Your task to perform on an android device: change notifications settings Image 0: 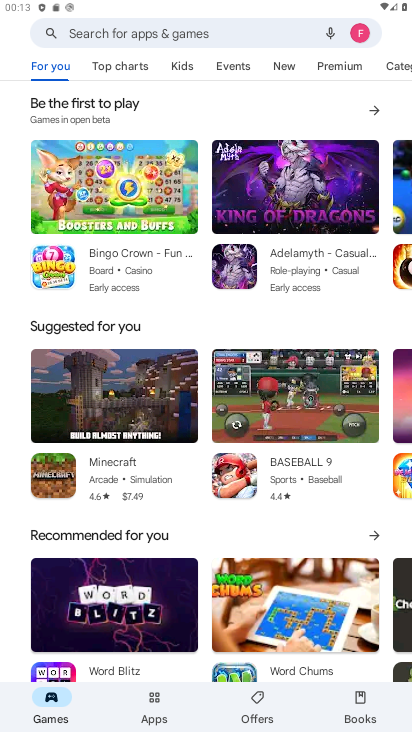
Step 0: press back button
Your task to perform on an android device: change notifications settings Image 1: 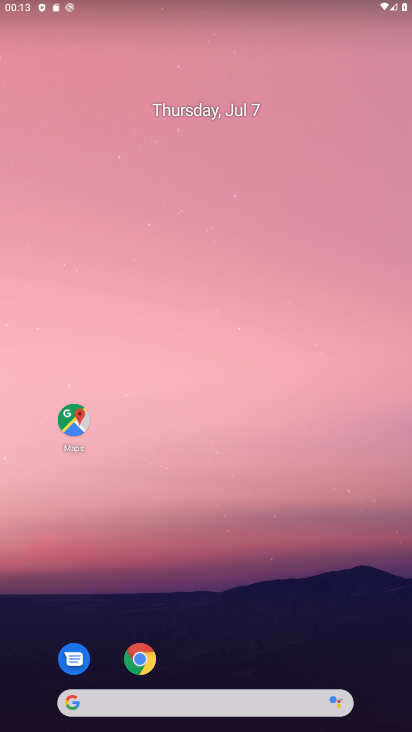
Step 1: drag from (220, 713) to (184, 360)
Your task to perform on an android device: change notifications settings Image 2: 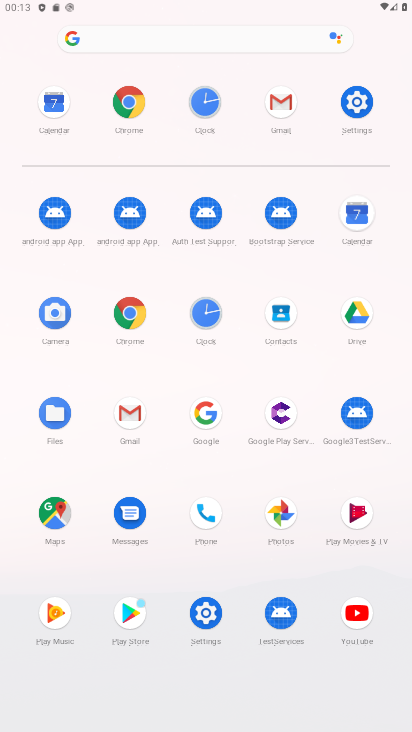
Step 2: click (355, 106)
Your task to perform on an android device: change notifications settings Image 3: 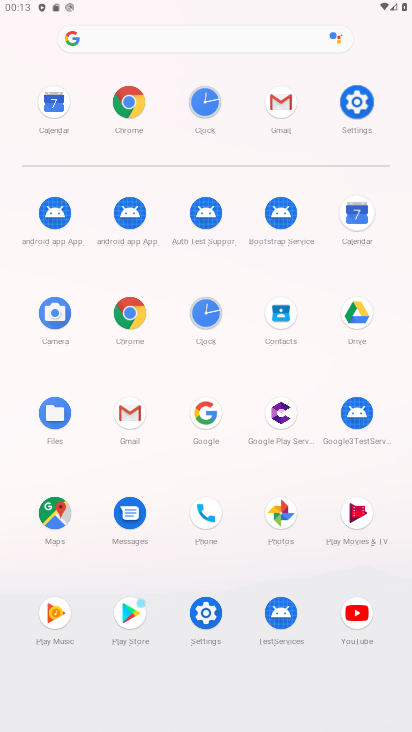
Step 3: click (360, 101)
Your task to perform on an android device: change notifications settings Image 4: 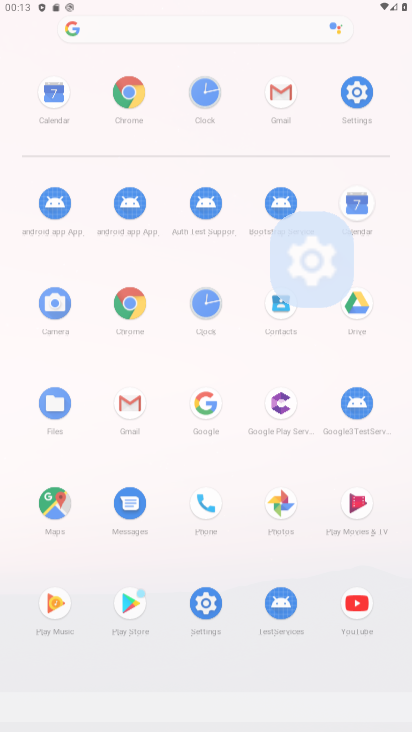
Step 4: click (364, 105)
Your task to perform on an android device: change notifications settings Image 5: 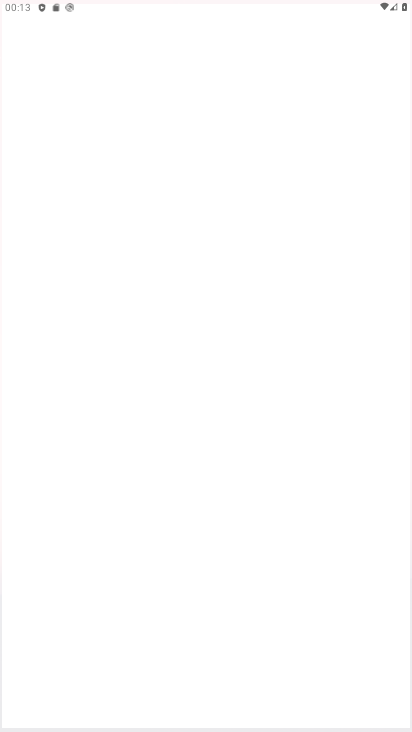
Step 5: click (364, 105)
Your task to perform on an android device: change notifications settings Image 6: 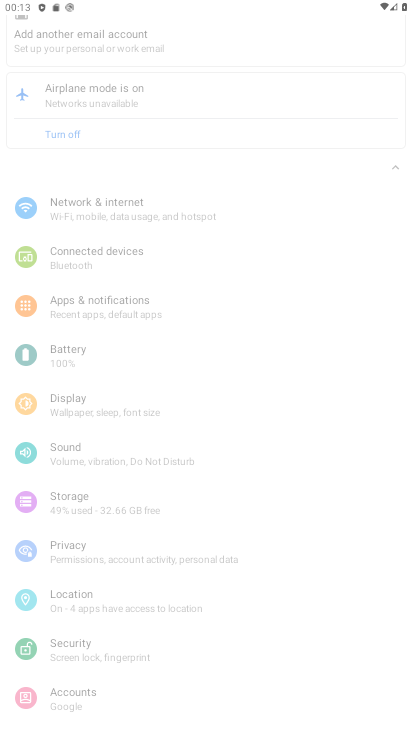
Step 6: click (331, 133)
Your task to perform on an android device: change notifications settings Image 7: 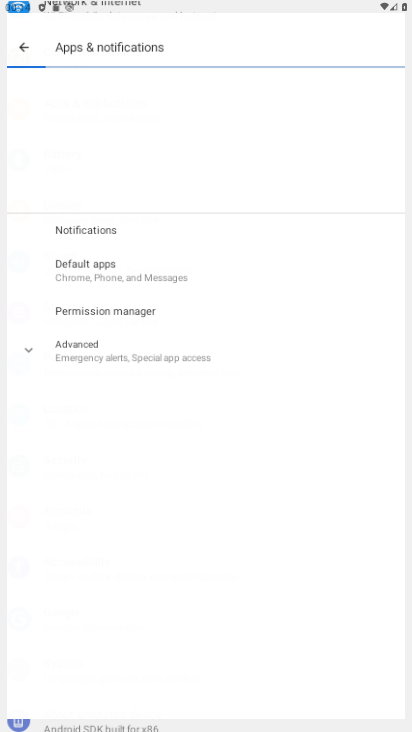
Step 7: click (139, 115)
Your task to perform on an android device: change notifications settings Image 8: 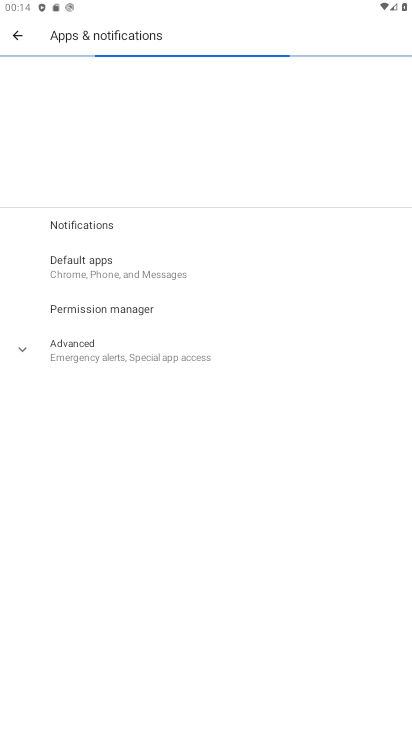
Step 8: click (139, 113)
Your task to perform on an android device: change notifications settings Image 9: 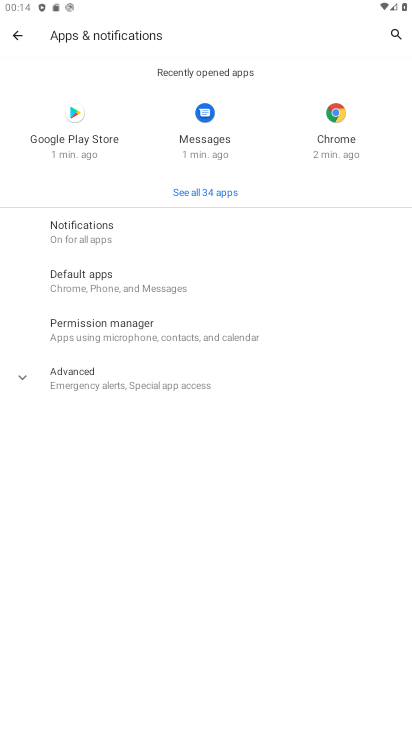
Step 9: click (95, 231)
Your task to perform on an android device: change notifications settings Image 10: 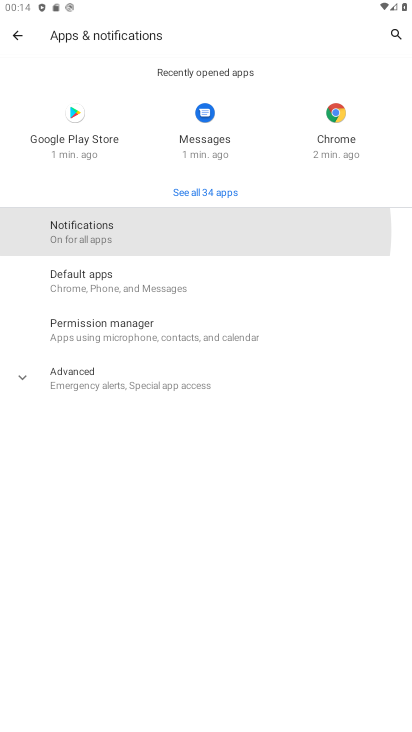
Step 10: click (97, 234)
Your task to perform on an android device: change notifications settings Image 11: 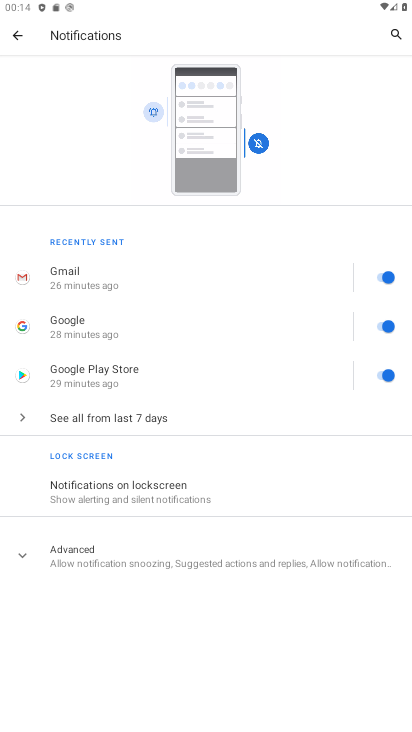
Step 11: click (101, 480)
Your task to perform on an android device: change notifications settings Image 12: 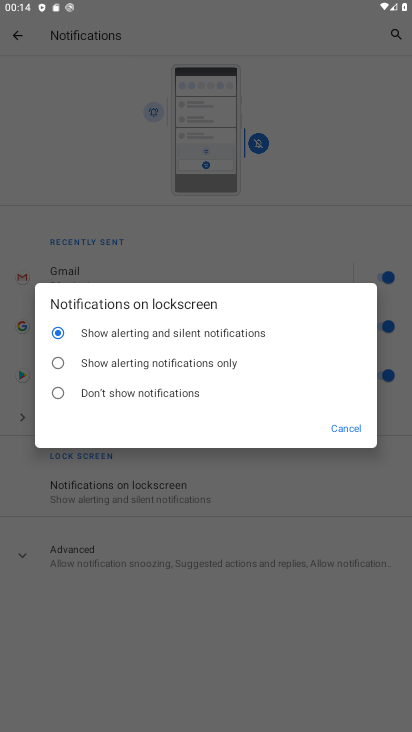
Step 12: click (355, 427)
Your task to perform on an android device: change notifications settings Image 13: 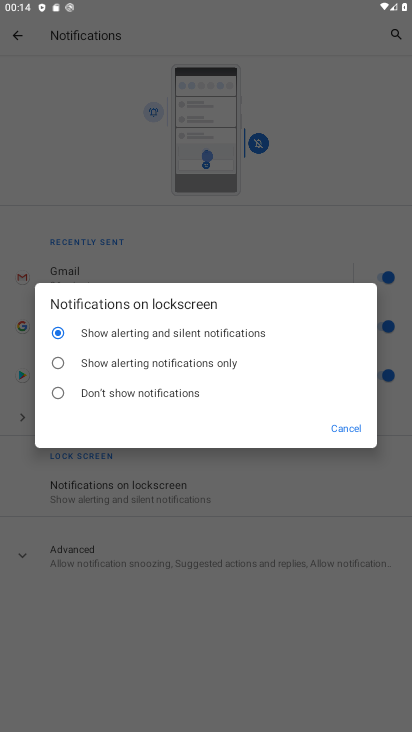
Step 13: click (356, 428)
Your task to perform on an android device: change notifications settings Image 14: 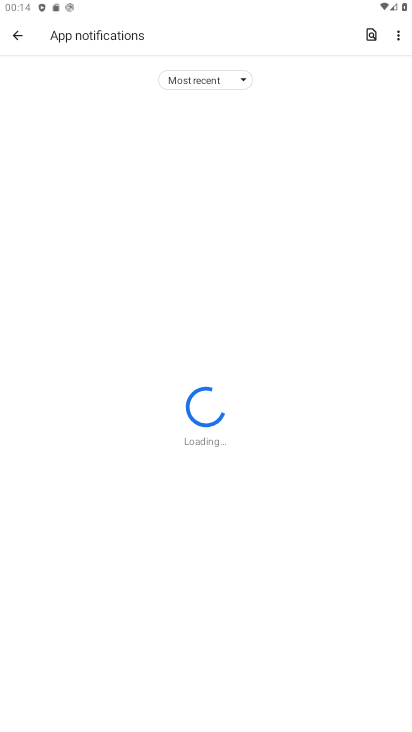
Step 14: click (101, 564)
Your task to perform on an android device: change notifications settings Image 15: 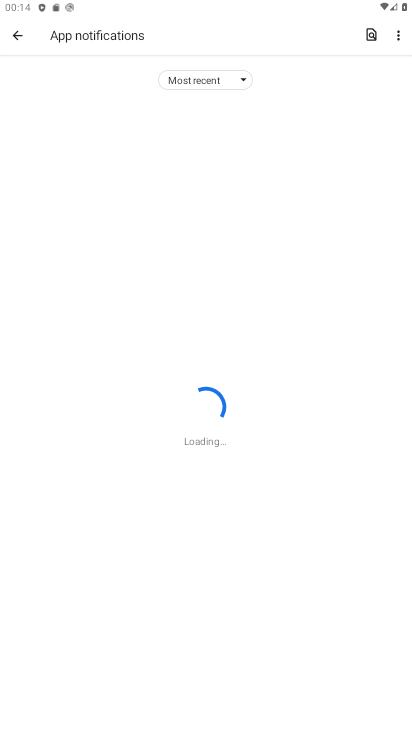
Step 15: click (115, 555)
Your task to perform on an android device: change notifications settings Image 16: 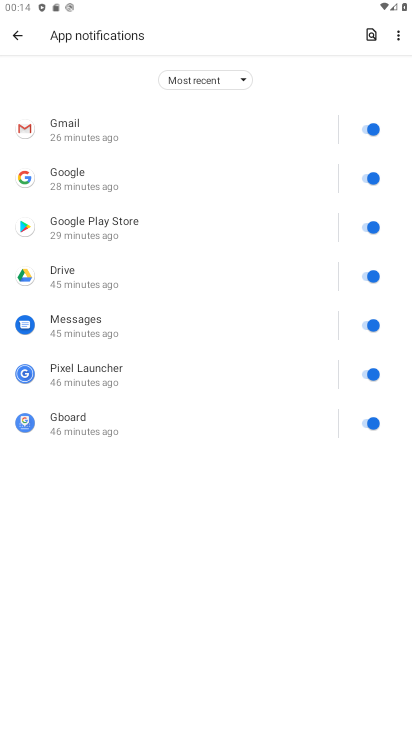
Step 16: click (18, 33)
Your task to perform on an android device: change notifications settings Image 17: 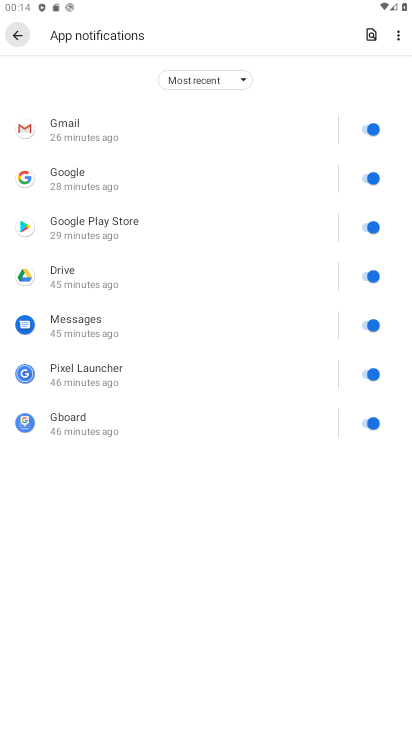
Step 17: click (17, 34)
Your task to perform on an android device: change notifications settings Image 18: 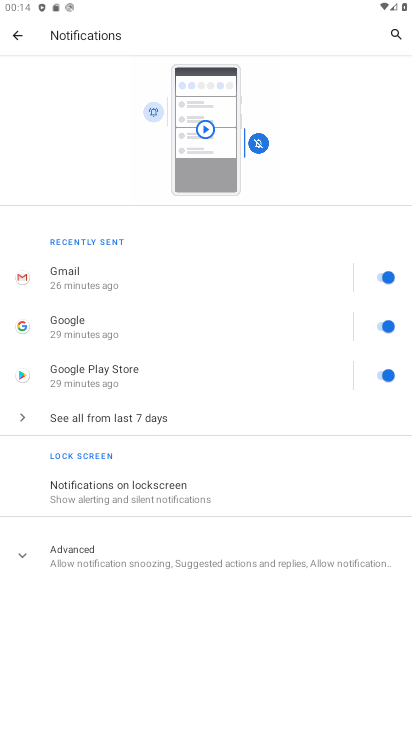
Step 18: click (210, 566)
Your task to perform on an android device: change notifications settings Image 19: 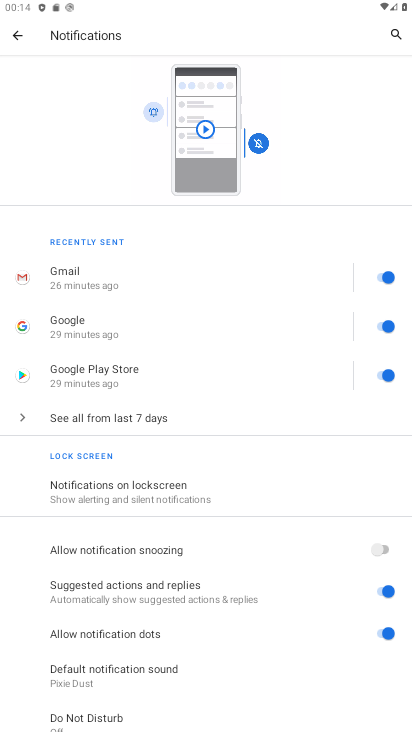
Step 19: drag from (210, 657) to (241, 360)
Your task to perform on an android device: change notifications settings Image 20: 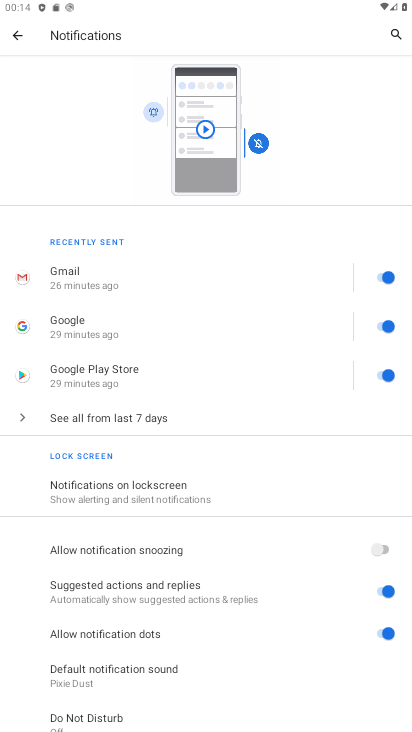
Step 20: click (397, 597)
Your task to perform on an android device: change notifications settings Image 21: 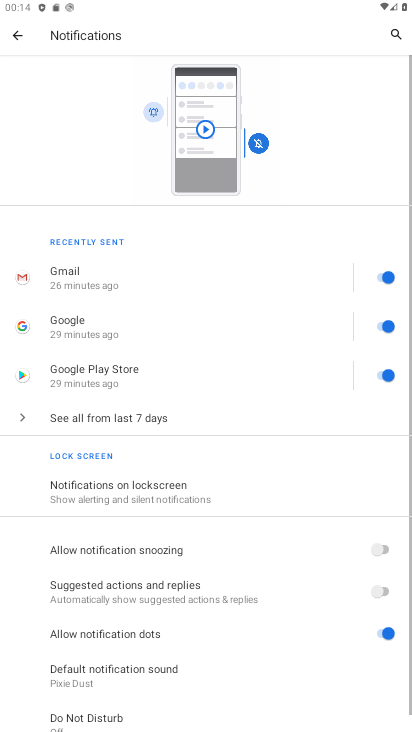
Step 21: click (387, 635)
Your task to perform on an android device: change notifications settings Image 22: 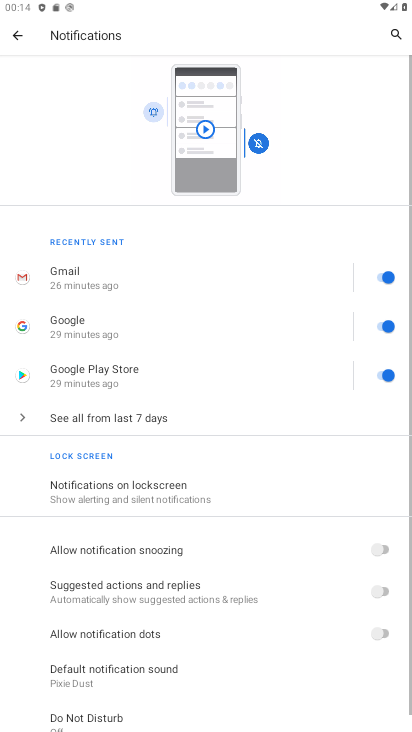
Step 22: click (378, 550)
Your task to perform on an android device: change notifications settings Image 23: 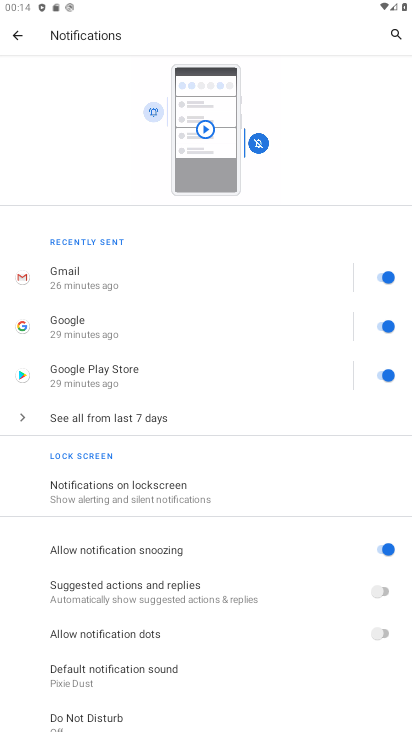
Step 23: task complete